Your task to perform on an android device: What's on my calendar tomorrow? Image 0: 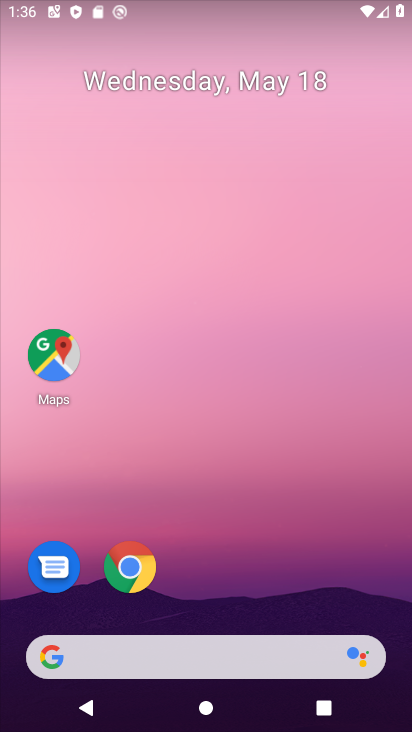
Step 0: drag from (256, 570) to (307, 83)
Your task to perform on an android device: What's on my calendar tomorrow? Image 1: 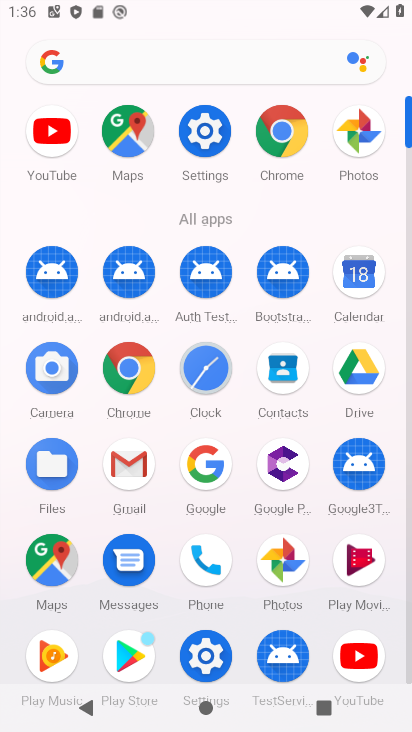
Step 1: click (349, 268)
Your task to perform on an android device: What's on my calendar tomorrow? Image 2: 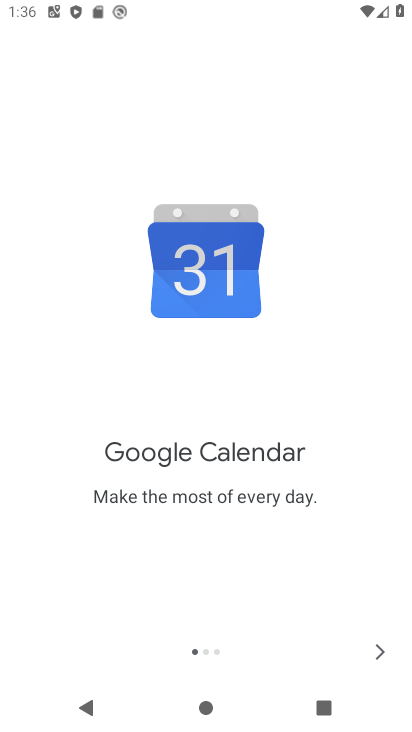
Step 2: click (377, 655)
Your task to perform on an android device: What's on my calendar tomorrow? Image 3: 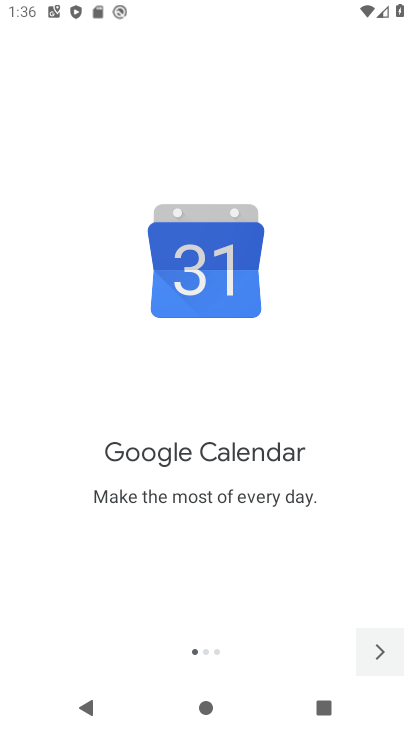
Step 3: click (376, 654)
Your task to perform on an android device: What's on my calendar tomorrow? Image 4: 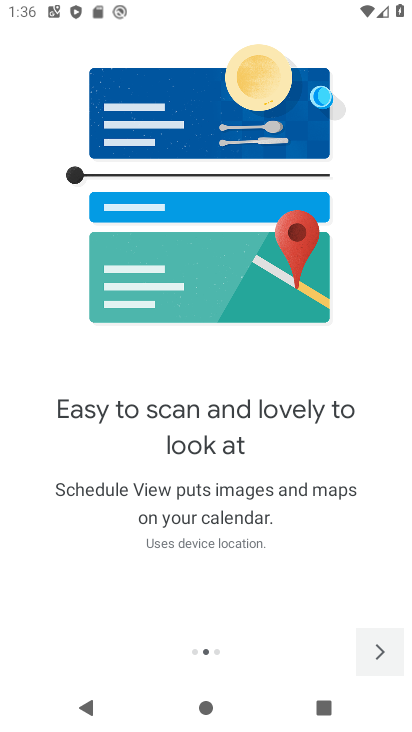
Step 4: click (376, 654)
Your task to perform on an android device: What's on my calendar tomorrow? Image 5: 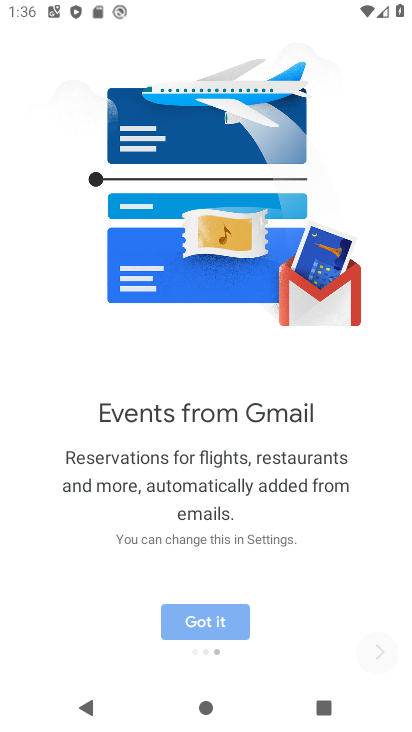
Step 5: click (375, 653)
Your task to perform on an android device: What's on my calendar tomorrow? Image 6: 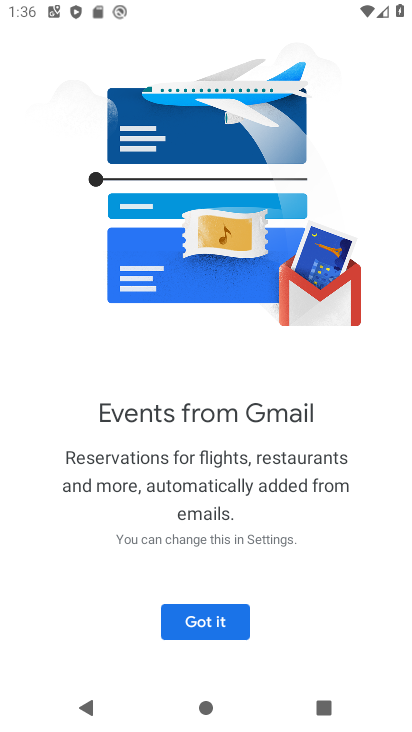
Step 6: click (189, 632)
Your task to perform on an android device: What's on my calendar tomorrow? Image 7: 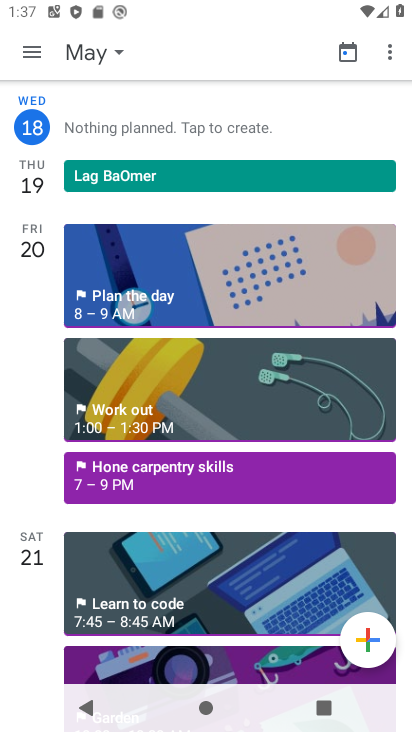
Step 7: click (30, 187)
Your task to perform on an android device: What's on my calendar tomorrow? Image 8: 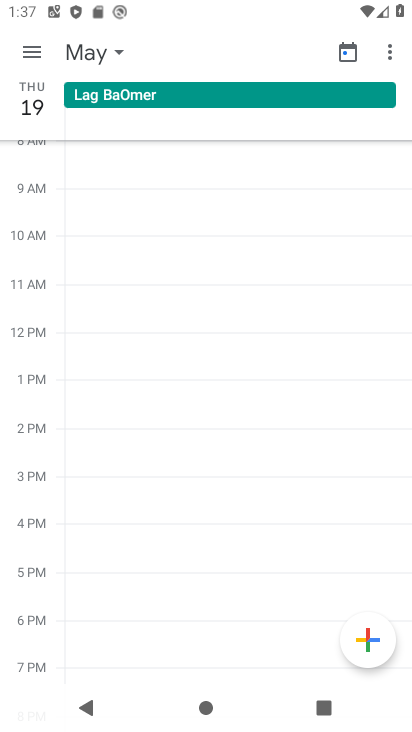
Step 8: task complete